Your task to perform on an android device: turn vacation reply on in the gmail app Image 0: 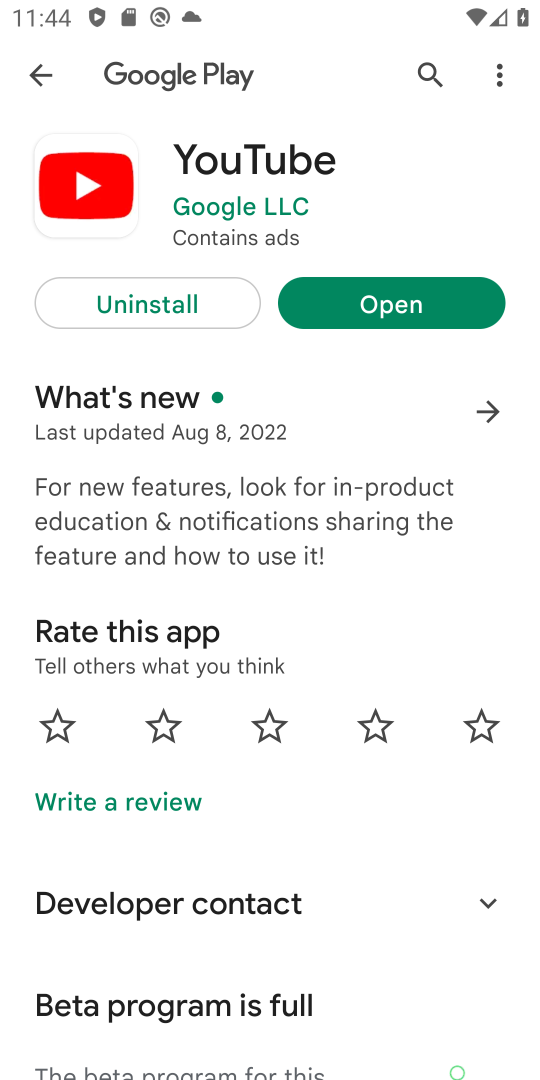
Step 0: press home button
Your task to perform on an android device: turn vacation reply on in the gmail app Image 1: 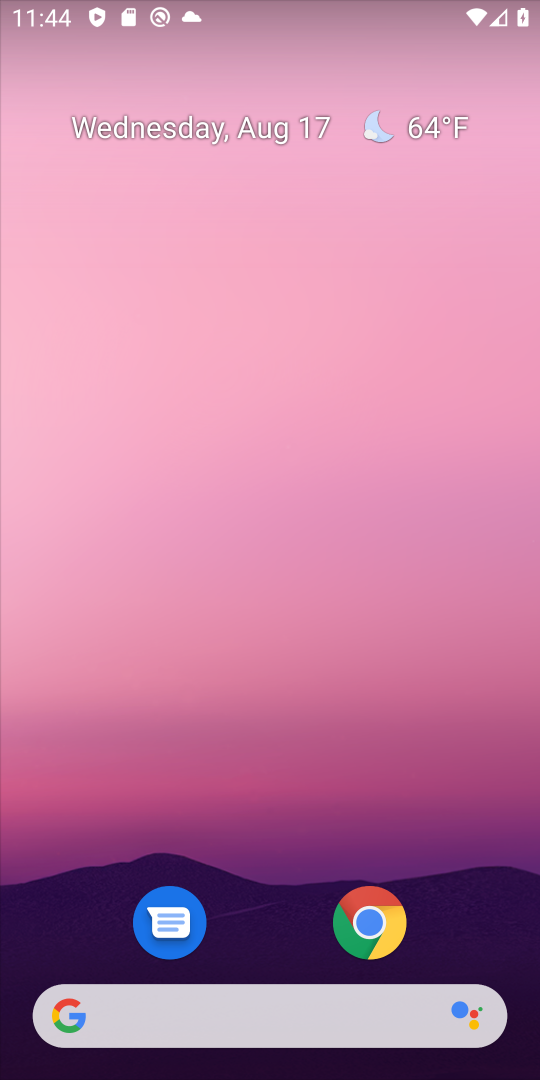
Step 1: drag from (252, 882) to (369, 79)
Your task to perform on an android device: turn vacation reply on in the gmail app Image 2: 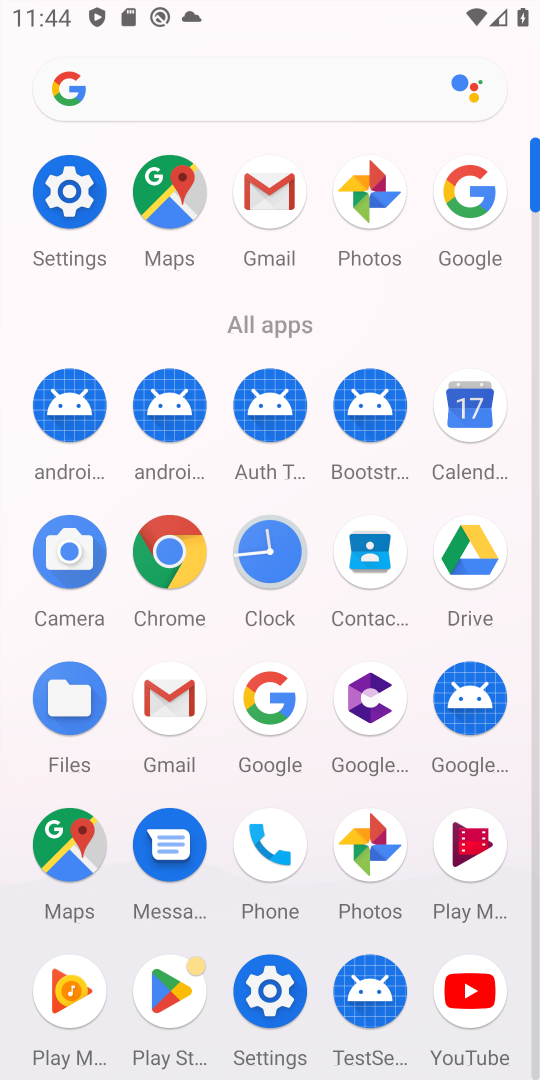
Step 2: click (244, 190)
Your task to perform on an android device: turn vacation reply on in the gmail app Image 3: 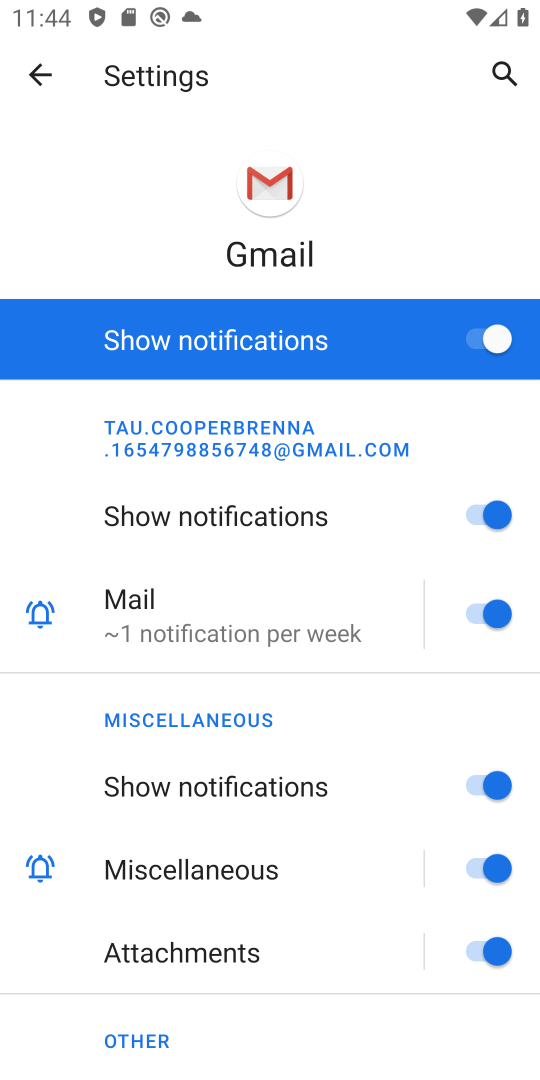
Step 3: click (47, 80)
Your task to perform on an android device: turn vacation reply on in the gmail app Image 4: 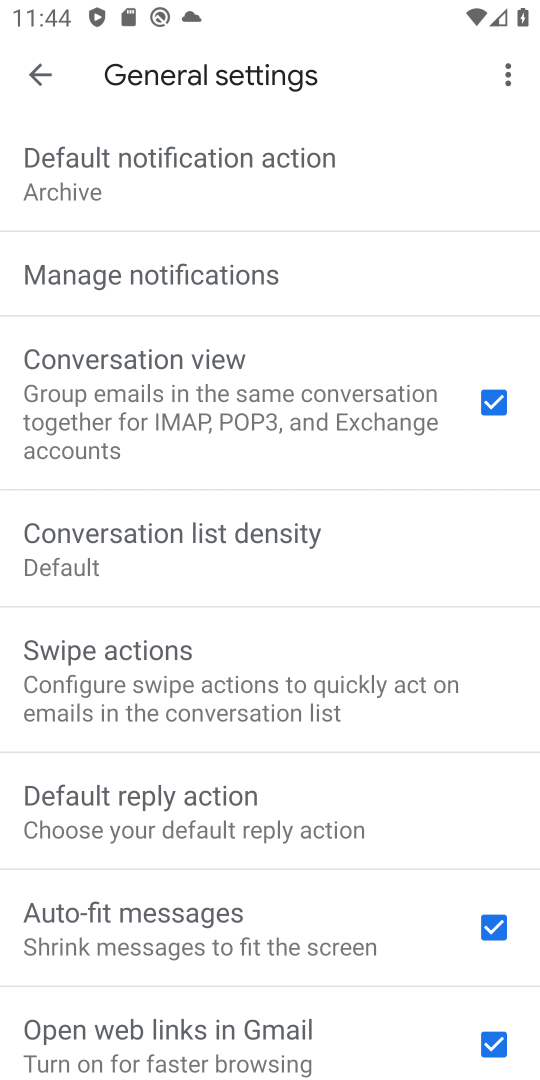
Step 4: click (51, 63)
Your task to perform on an android device: turn vacation reply on in the gmail app Image 5: 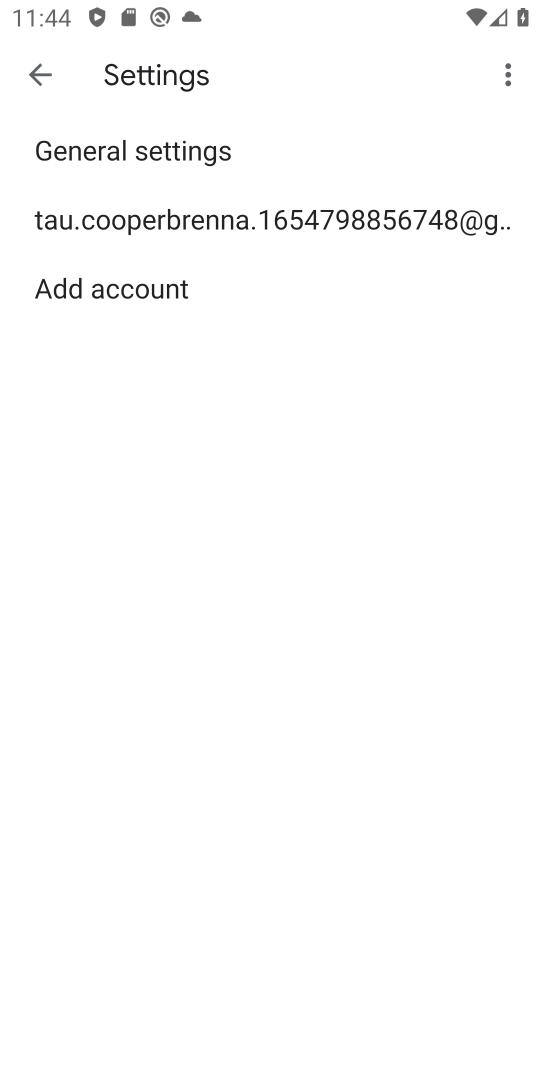
Step 5: click (87, 211)
Your task to perform on an android device: turn vacation reply on in the gmail app Image 6: 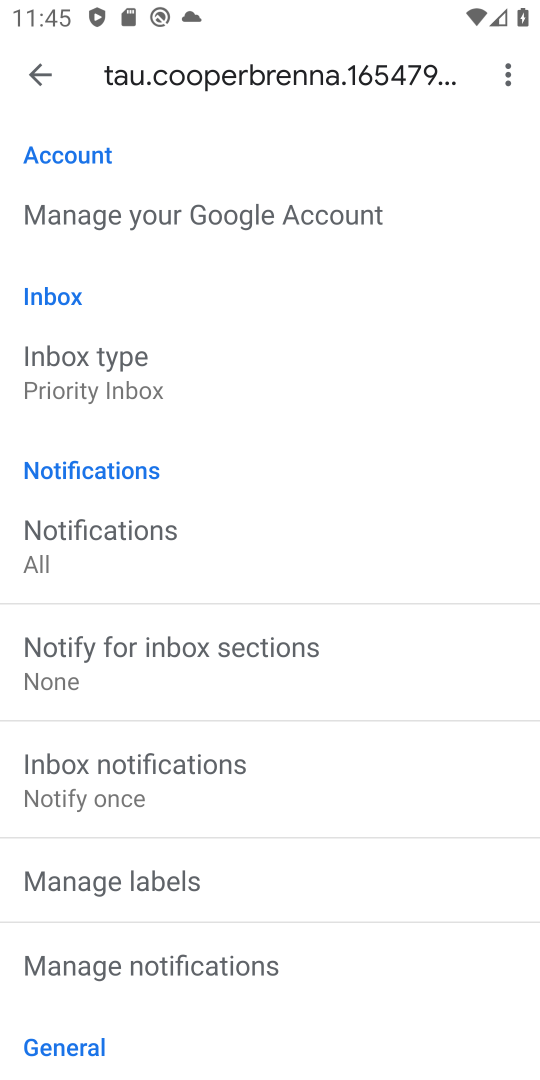
Step 6: drag from (225, 1006) to (273, 508)
Your task to perform on an android device: turn vacation reply on in the gmail app Image 7: 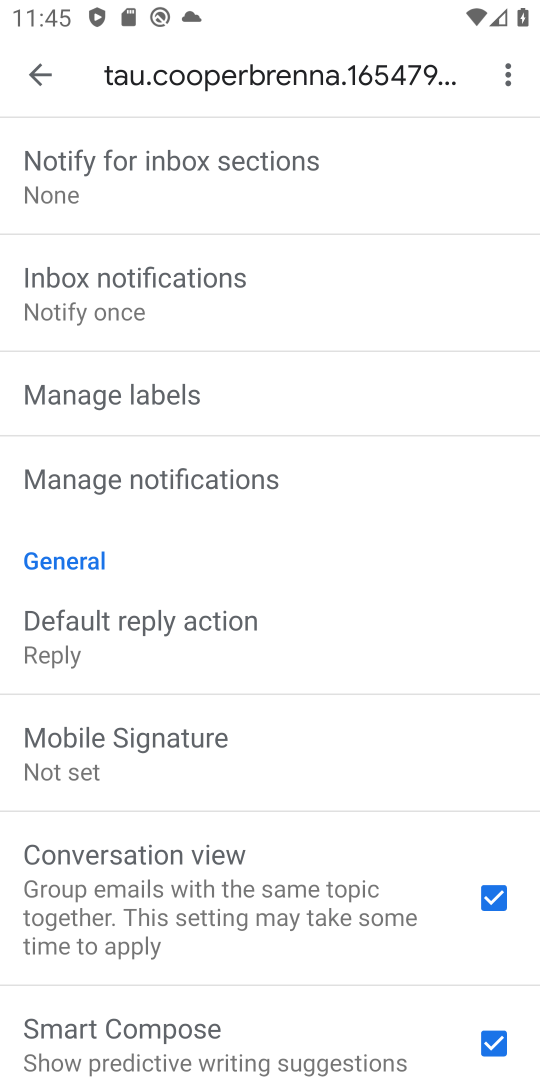
Step 7: drag from (280, 784) to (276, 233)
Your task to perform on an android device: turn vacation reply on in the gmail app Image 8: 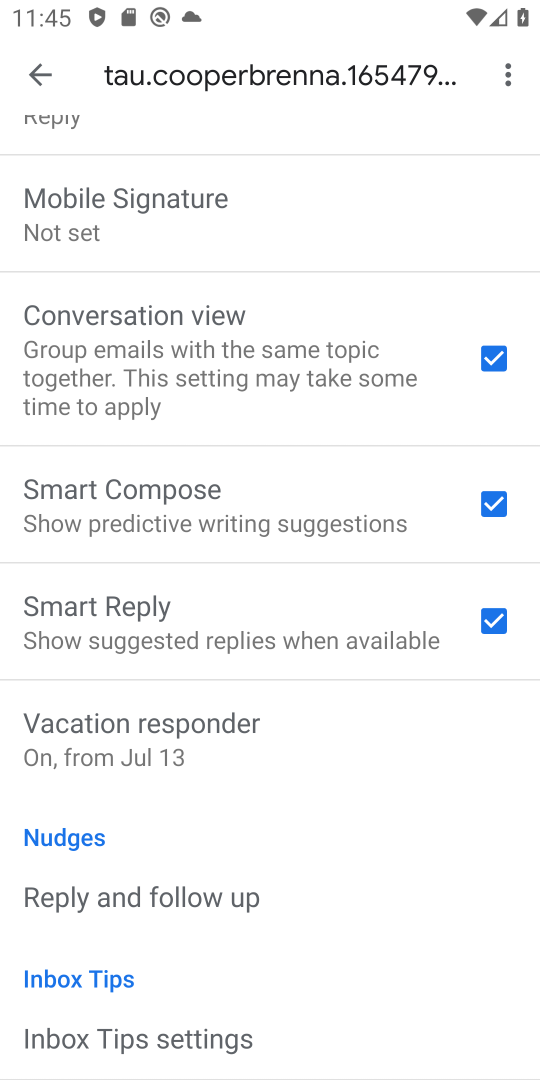
Step 8: click (151, 719)
Your task to perform on an android device: turn vacation reply on in the gmail app Image 9: 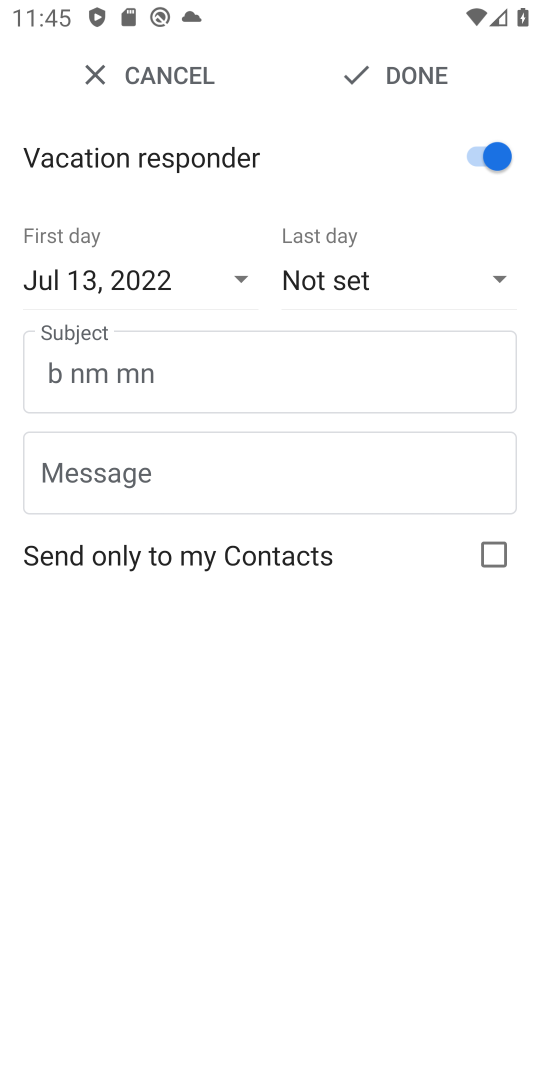
Step 9: task complete